Your task to perform on an android device: all mails in gmail Image 0: 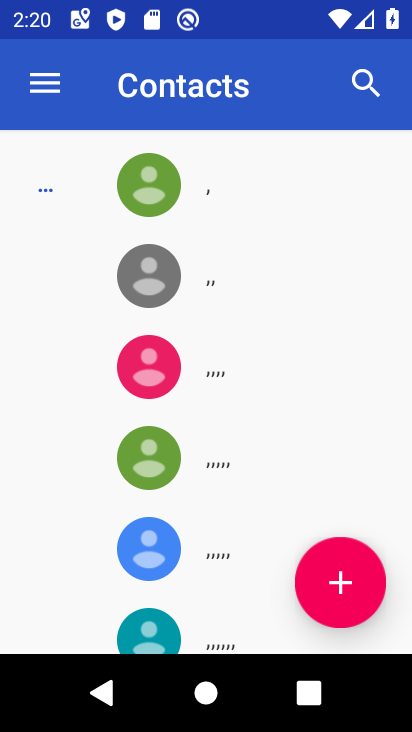
Step 0: press home button
Your task to perform on an android device: all mails in gmail Image 1: 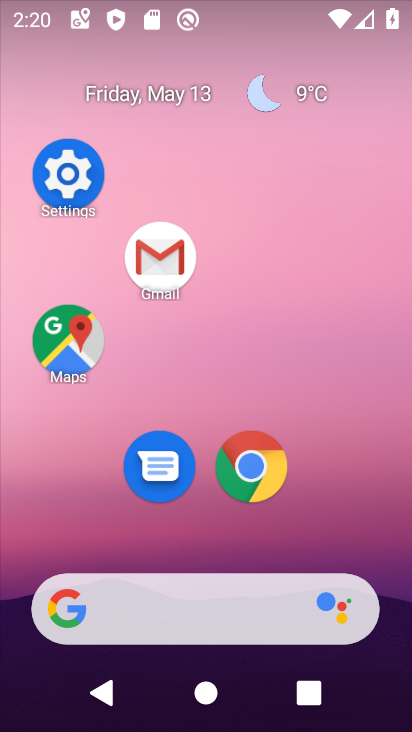
Step 1: click (166, 246)
Your task to perform on an android device: all mails in gmail Image 2: 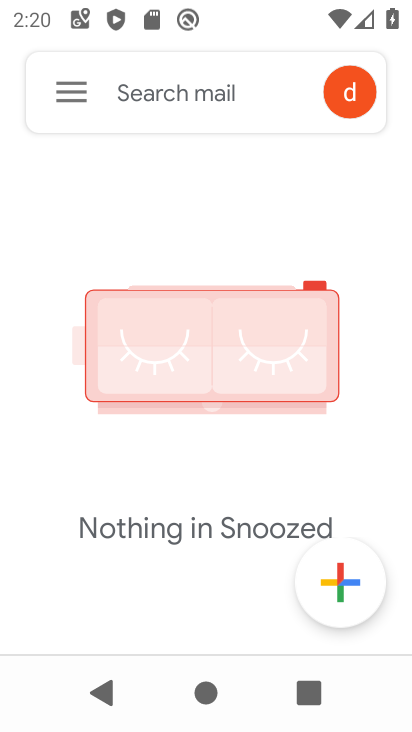
Step 2: click (60, 97)
Your task to perform on an android device: all mails in gmail Image 3: 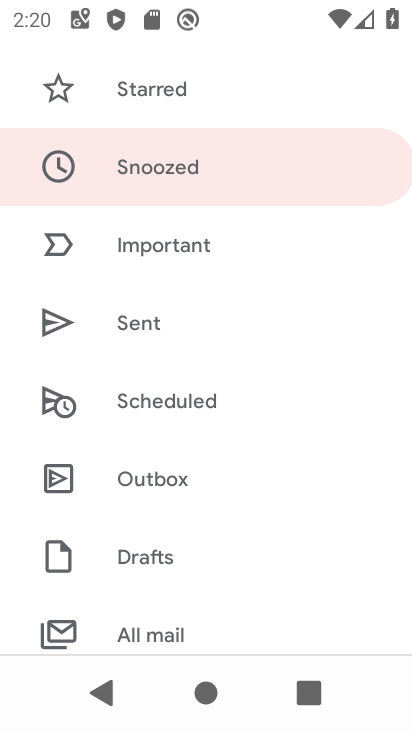
Step 3: drag from (222, 518) to (274, 201)
Your task to perform on an android device: all mails in gmail Image 4: 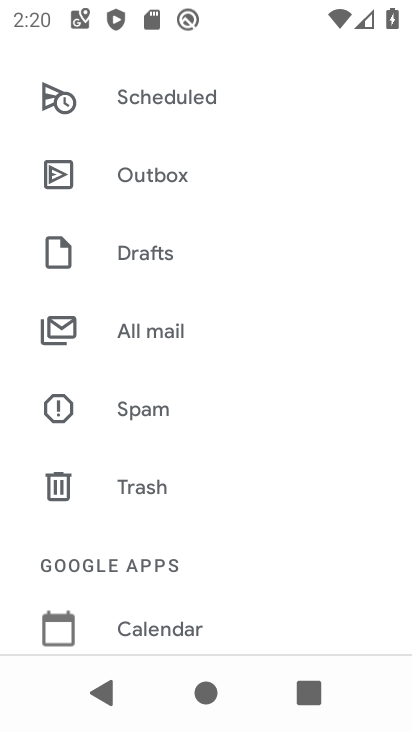
Step 4: click (219, 325)
Your task to perform on an android device: all mails in gmail Image 5: 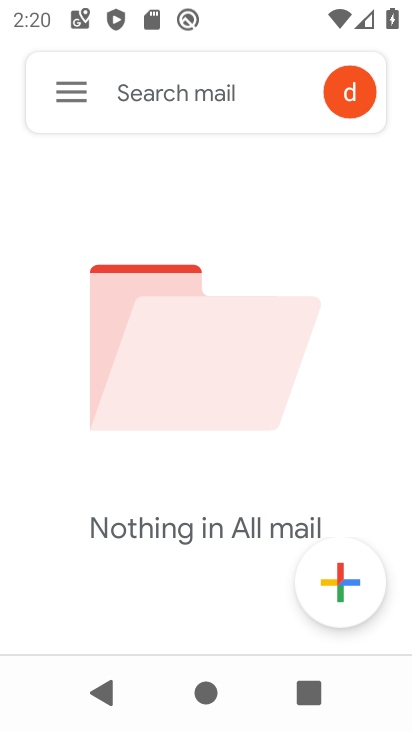
Step 5: task complete